Your task to perform on an android device: Open calendar and show me the third week of next month Image 0: 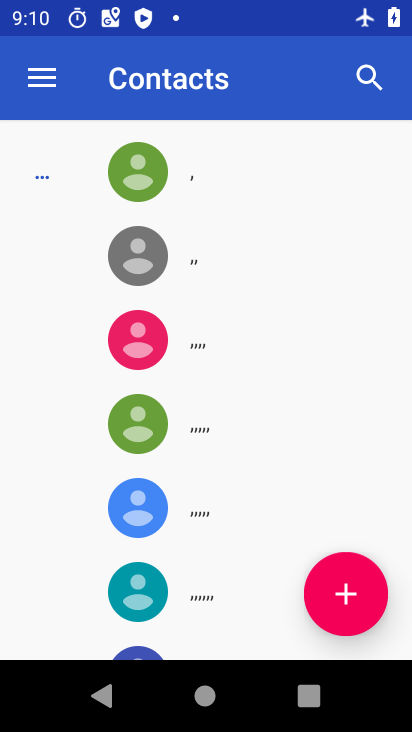
Step 0: press home button
Your task to perform on an android device: Open calendar and show me the third week of next month Image 1: 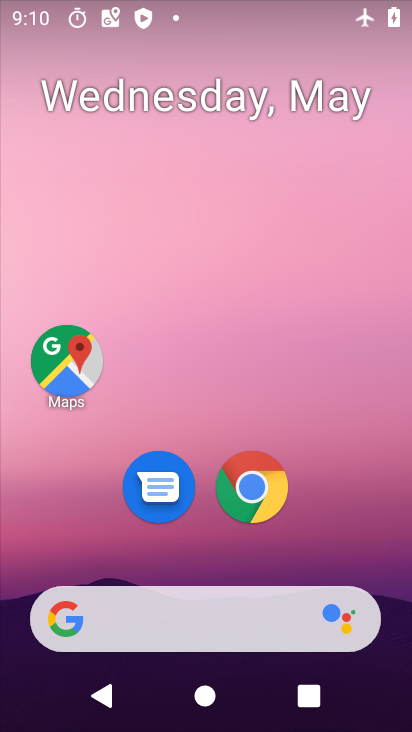
Step 1: drag from (200, 571) to (212, 240)
Your task to perform on an android device: Open calendar and show me the third week of next month Image 2: 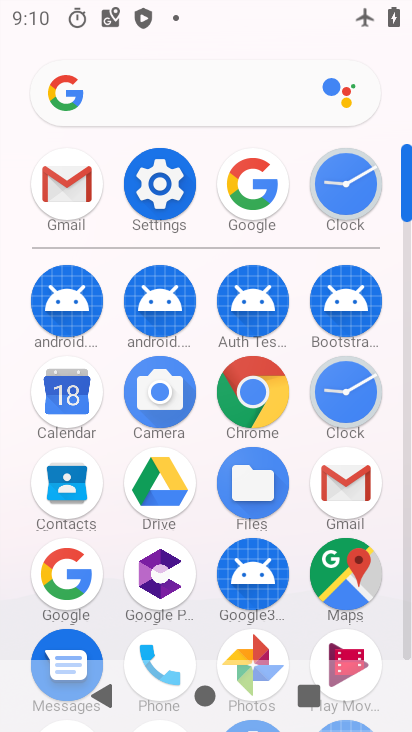
Step 2: click (71, 383)
Your task to perform on an android device: Open calendar and show me the third week of next month Image 3: 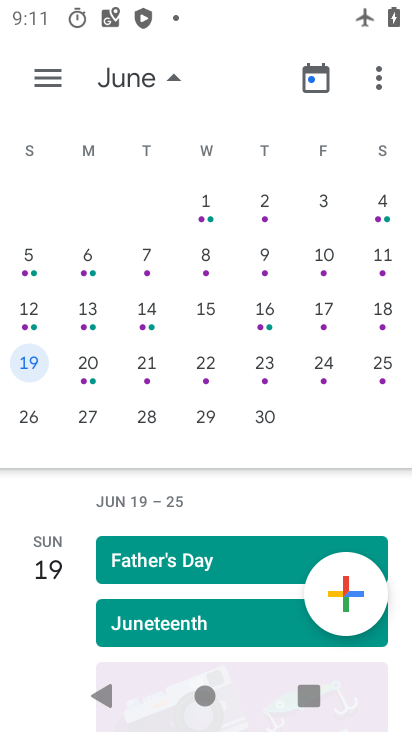
Step 3: click (187, 194)
Your task to perform on an android device: Open calendar and show me the third week of next month Image 4: 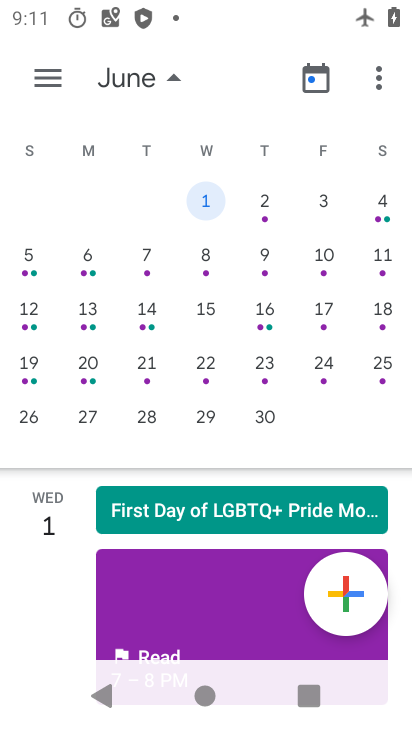
Step 4: click (37, 316)
Your task to perform on an android device: Open calendar and show me the third week of next month Image 5: 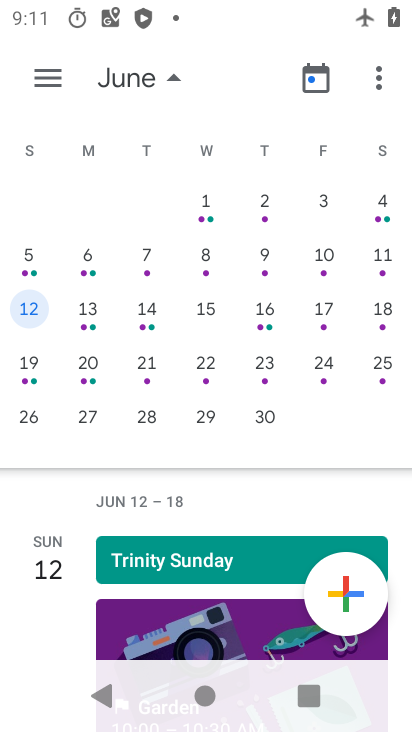
Step 5: click (38, 315)
Your task to perform on an android device: Open calendar and show me the third week of next month Image 6: 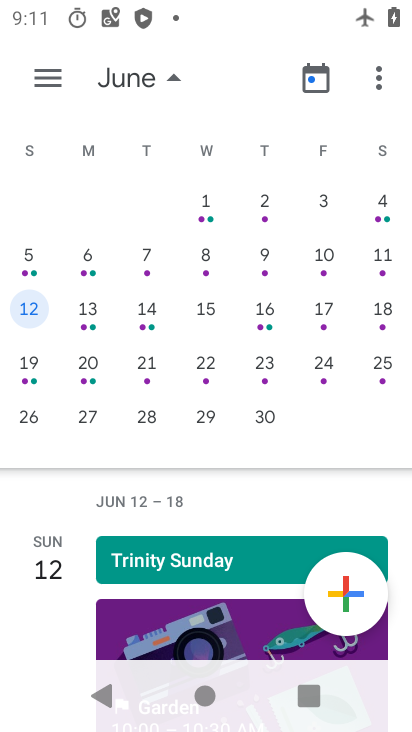
Step 6: click (19, 300)
Your task to perform on an android device: Open calendar and show me the third week of next month Image 7: 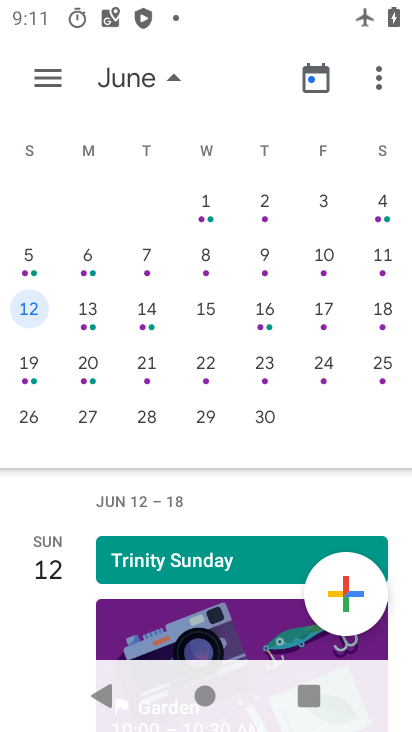
Step 7: task complete